Your task to perform on an android device: create a new album in the google photos Image 0: 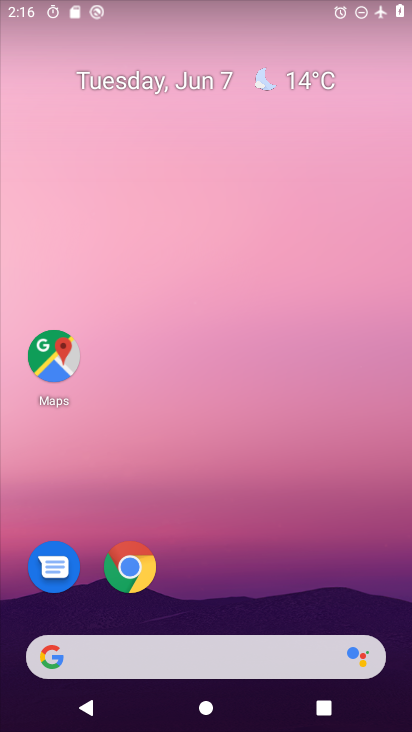
Step 0: drag from (315, 567) to (382, 3)
Your task to perform on an android device: create a new album in the google photos Image 1: 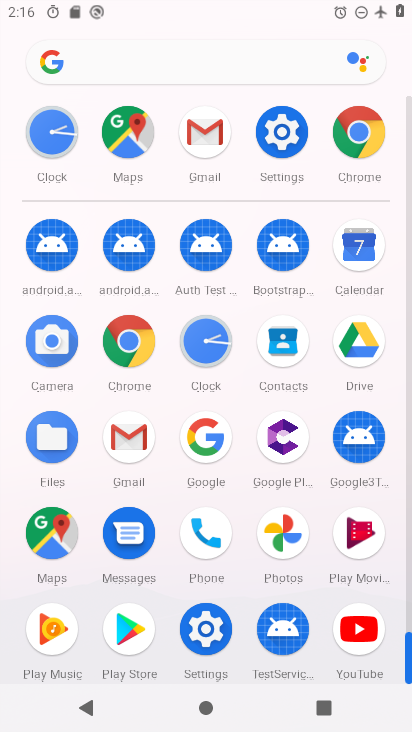
Step 1: click (276, 531)
Your task to perform on an android device: create a new album in the google photos Image 2: 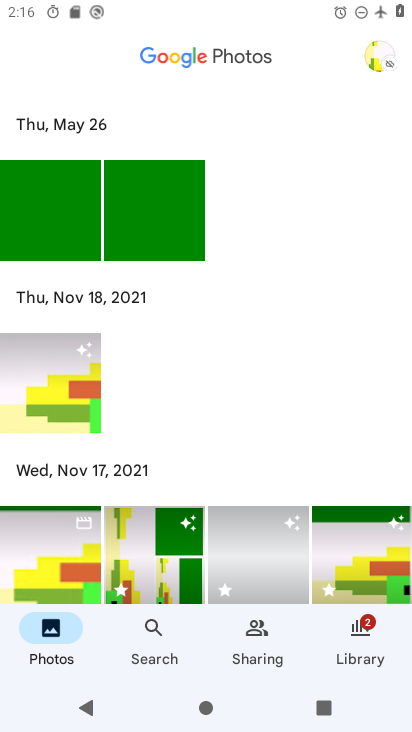
Step 2: task complete